Your task to perform on an android device: Show the shopping cart on bestbuy. Image 0: 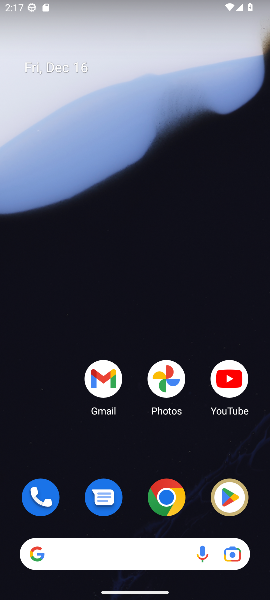
Step 0: click (170, 497)
Your task to perform on an android device: Show the shopping cart on bestbuy. Image 1: 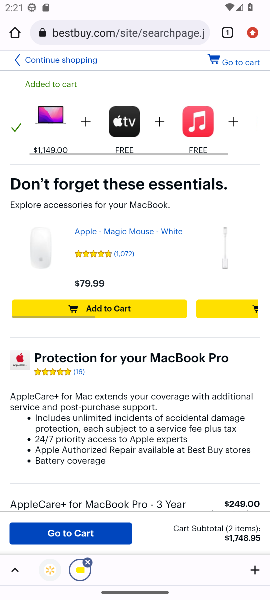
Step 1: task complete